Your task to perform on an android device: empty trash in the gmail app Image 0: 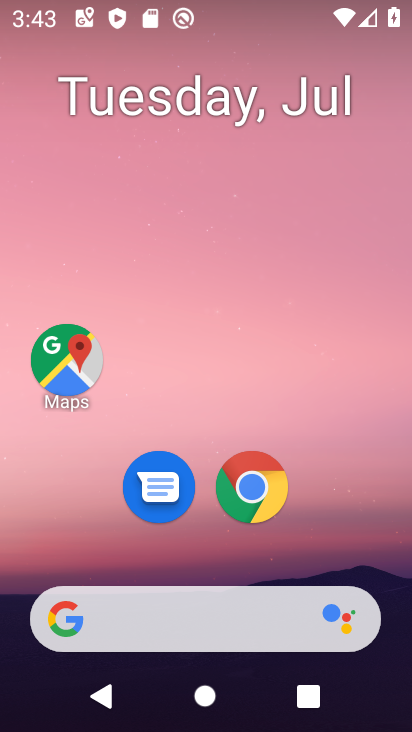
Step 0: drag from (154, 575) to (258, 8)
Your task to perform on an android device: empty trash in the gmail app Image 1: 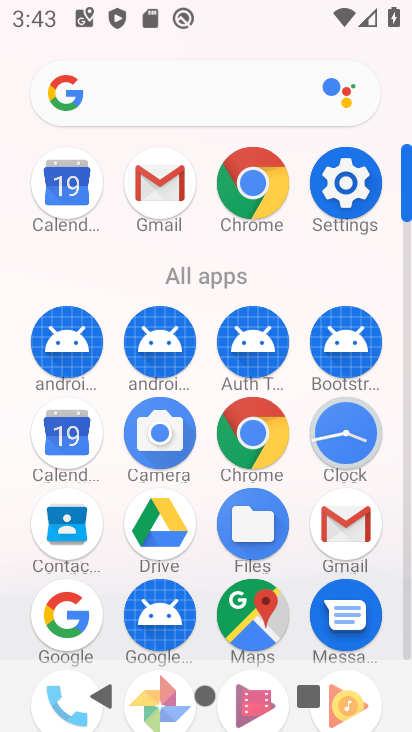
Step 1: click (156, 196)
Your task to perform on an android device: empty trash in the gmail app Image 2: 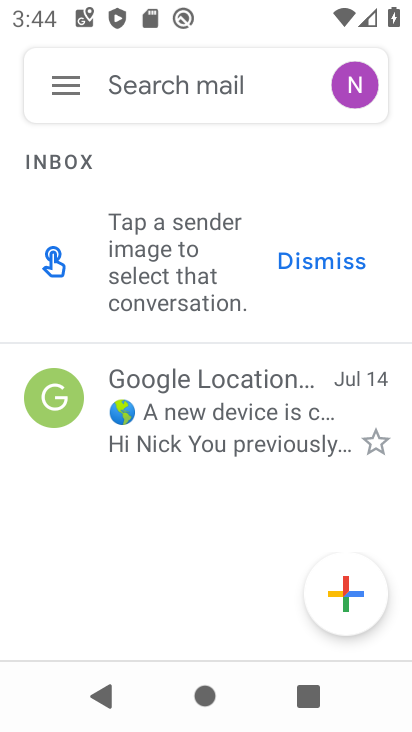
Step 2: click (73, 58)
Your task to perform on an android device: empty trash in the gmail app Image 3: 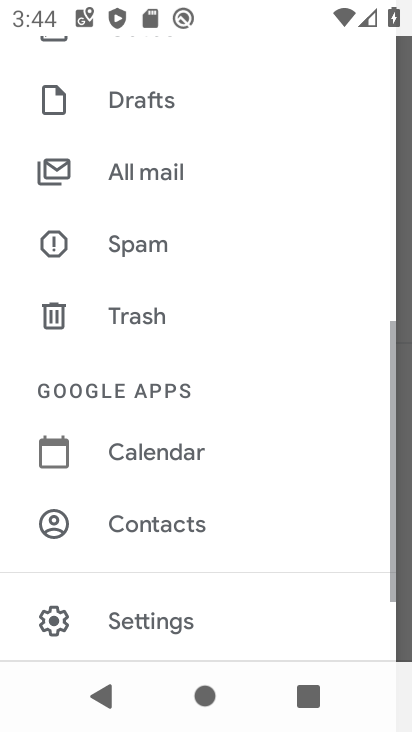
Step 3: click (133, 335)
Your task to perform on an android device: empty trash in the gmail app Image 4: 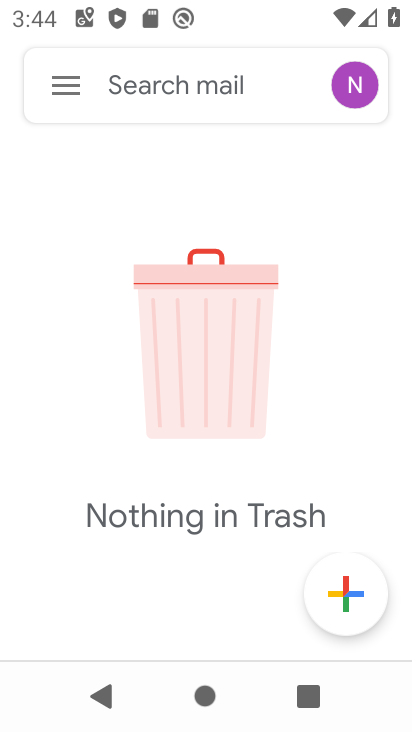
Step 4: task complete